Your task to perform on an android device: What's on the menu at Starbucks? Image 0: 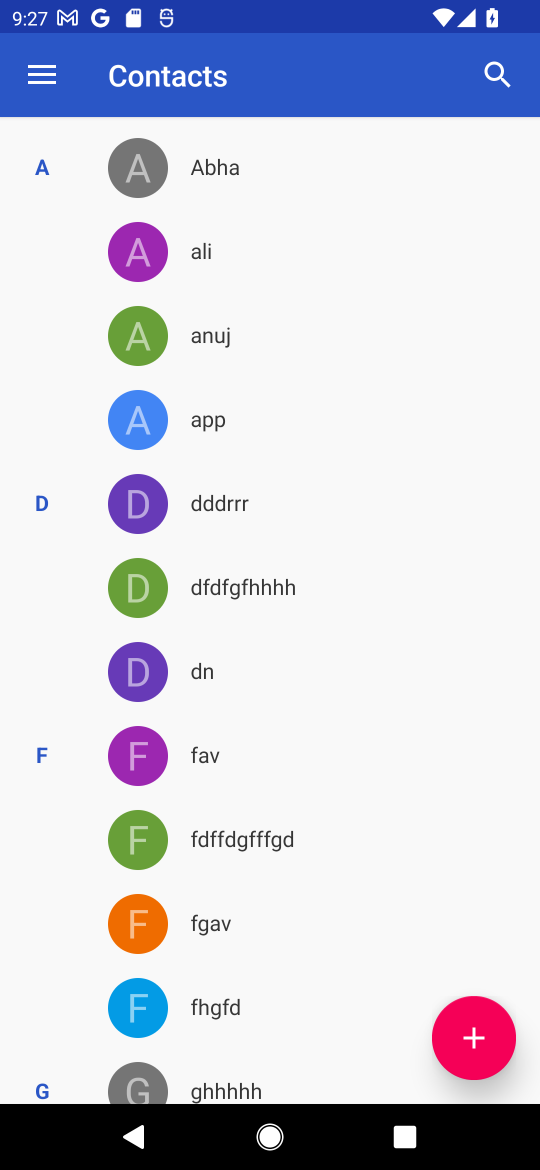
Step 0: press home button
Your task to perform on an android device: What's on the menu at Starbucks? Image 1: 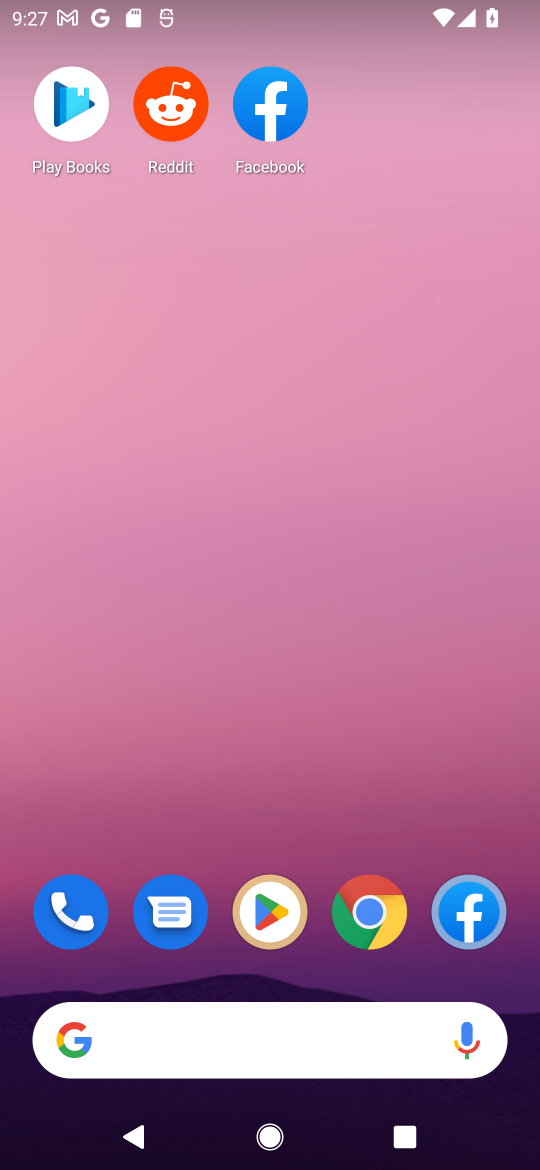
Step 1: click (365, 910)
Your task to perform on an android device: What's on the menu at Starbucks? Image 2: 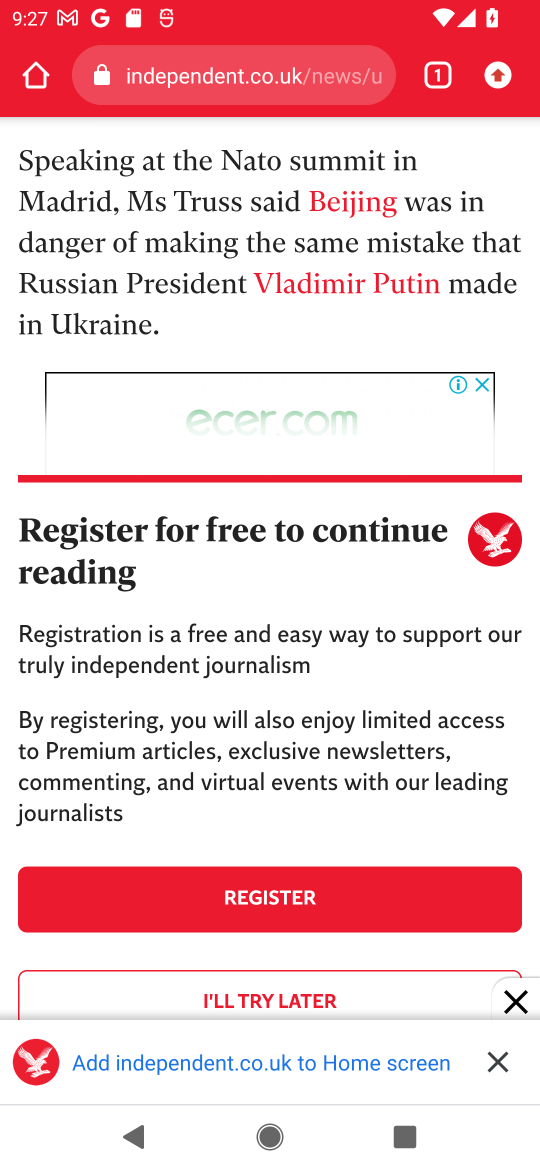
Step 2: click (291, 52)
Your task to perform on an android device: What's on the menu at Starbucks? Image 3: 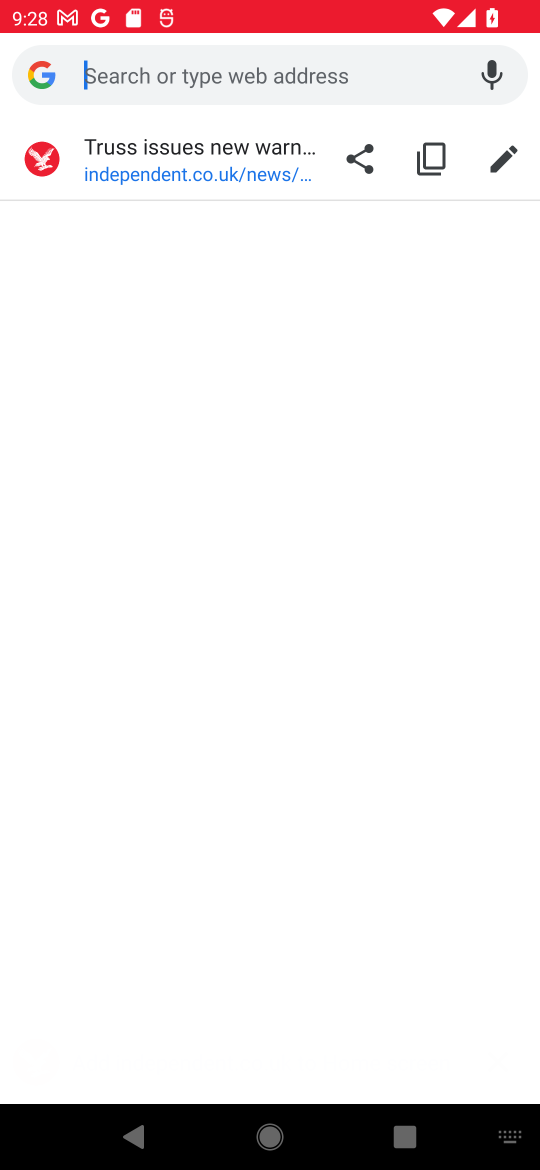
Step 3: type "menu at starbucks"
Your task to perform on an android device: What's on the menu at Starbucks? Image 4: 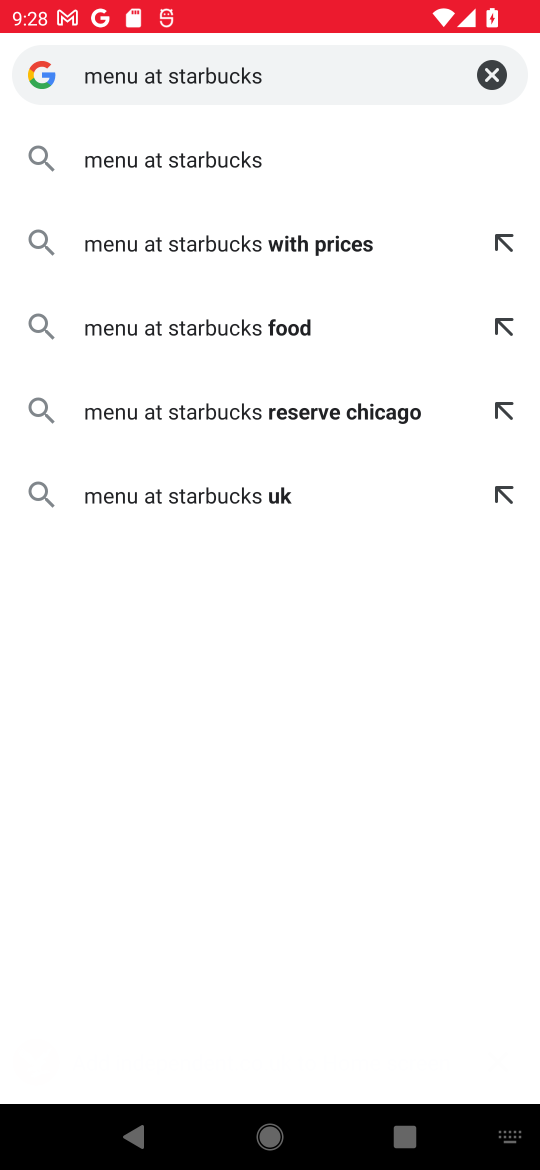
Step 4: click (227, 174)
Your task to perform on an android device: What's on the menu at Starbucks? Image 5: 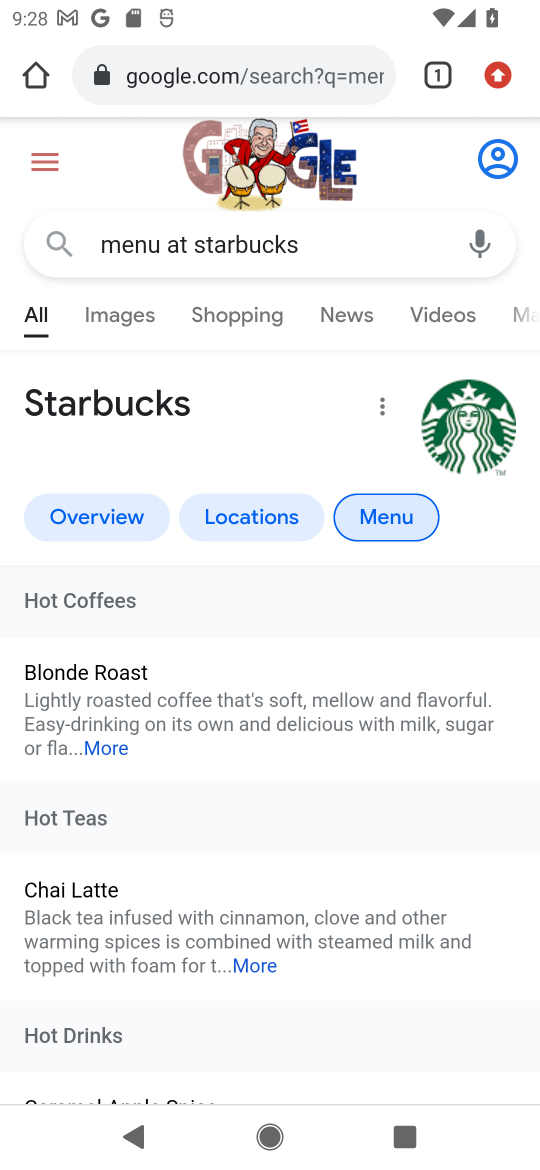
Step 5: drag from (375, 782) to (418, 304)
Your task to perform on an android device: What's on the menu at Starbucks? Image 6: 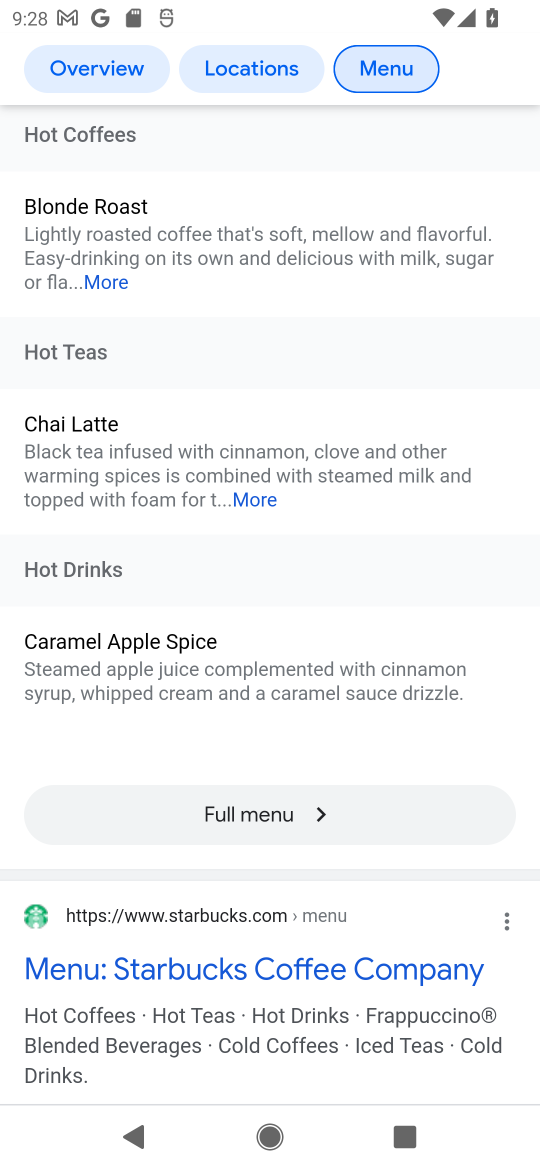
Step 6: drag from (305, 768) to (320, 214)
Your task to perform on an android device: What's on the menu at Starbucks? Image 7: 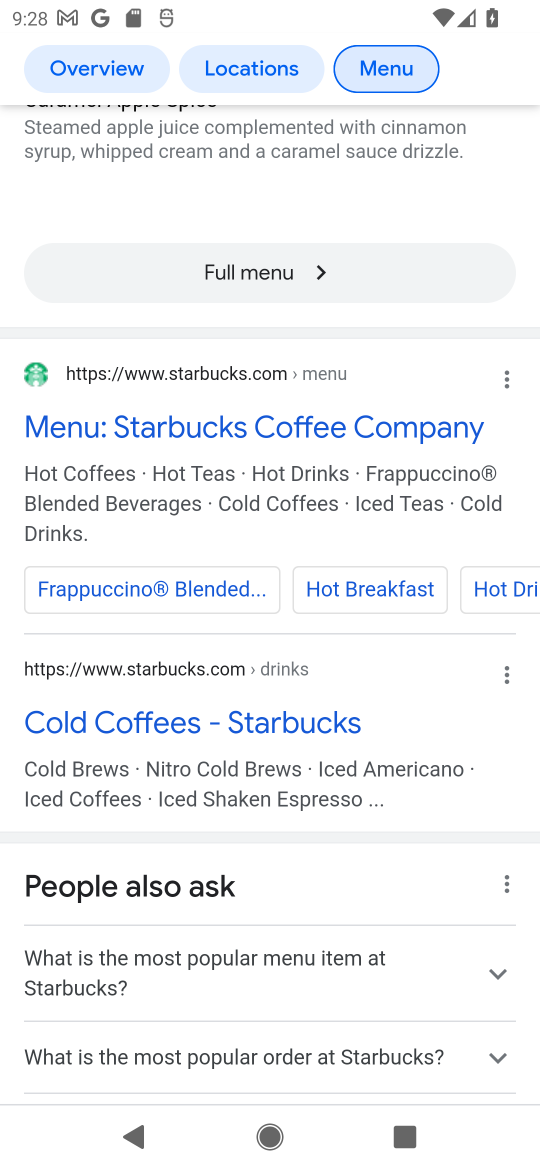
Step 7: click (224, 438)
Your task to perform on an android device: What's on the menu at Starbucks? Image 8: 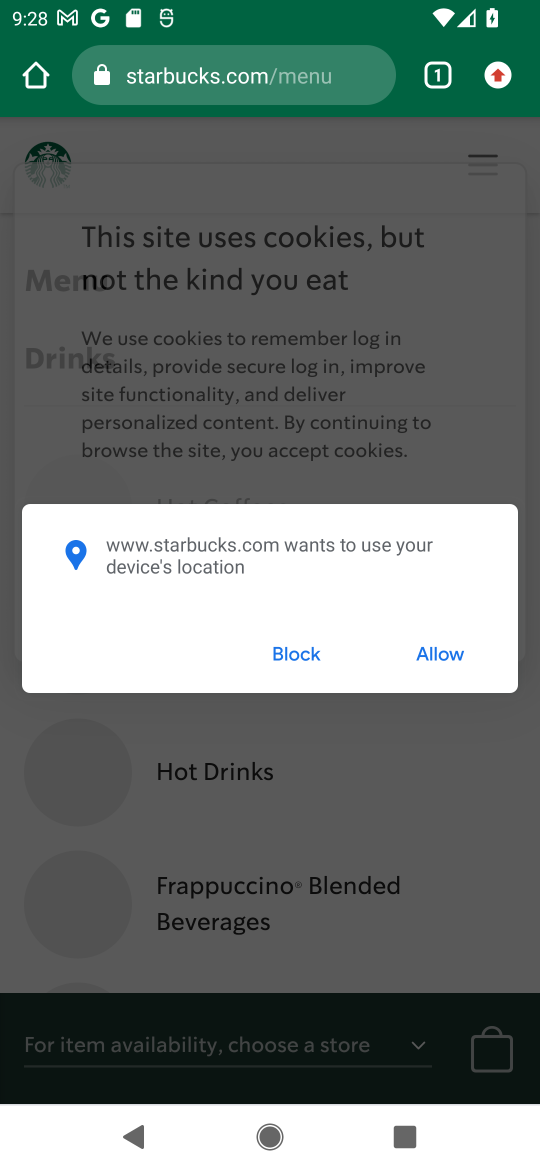
Step 8: click (287, 651)
Your task to perform on an android device: What's on the menu at Starbucks? Image 9: 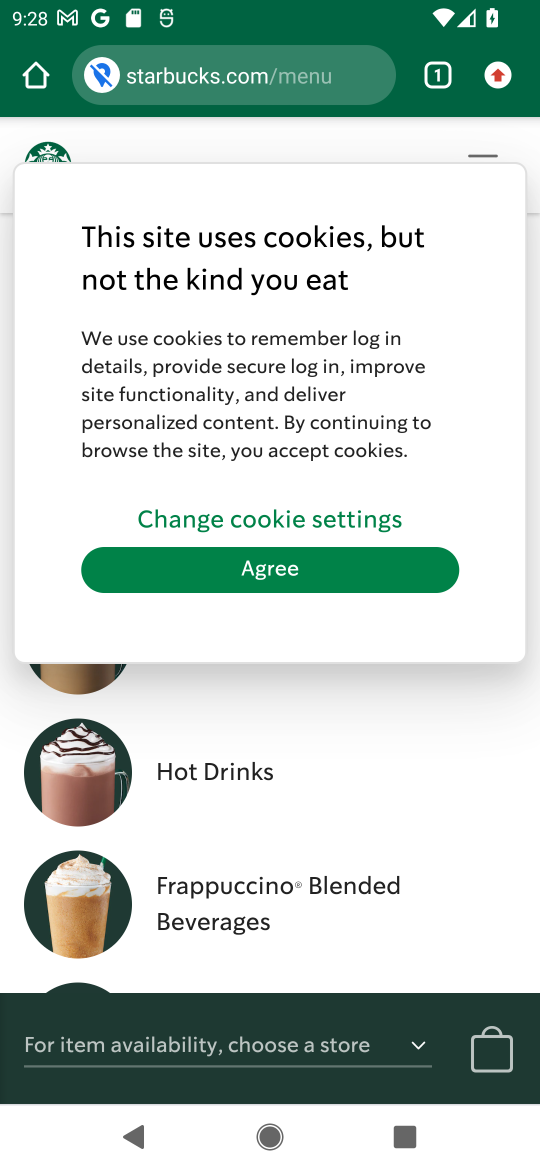
Step 9: click (288, 575)
Your task to perform on an android device: What's on the menu at Starbucks? Image 10: 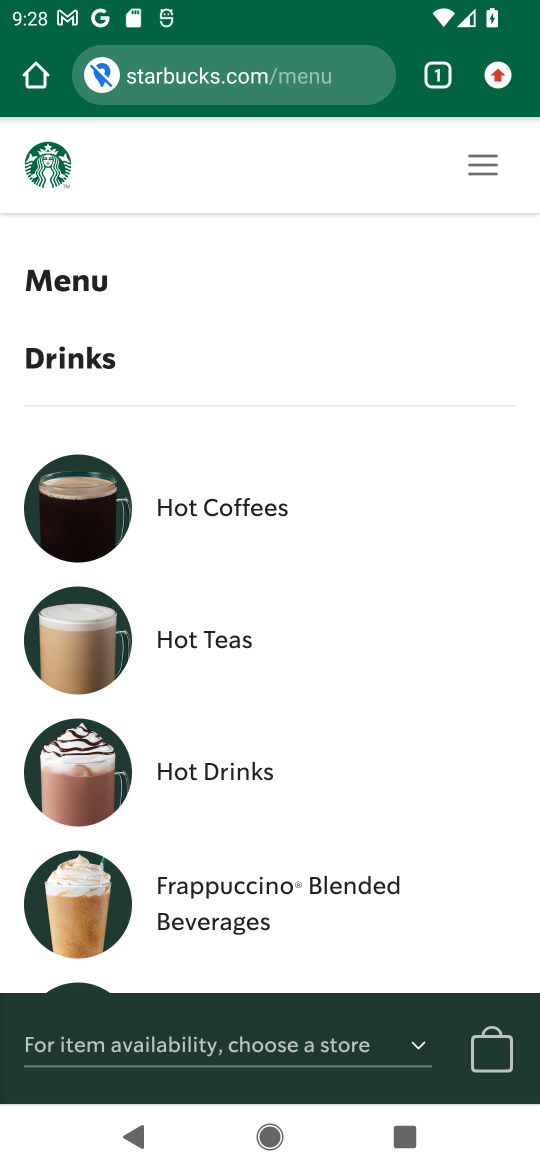
Step 10: drag from (327, 806) to (348, 368)
Your task to perform on an android device: What's on the menu at Starbucks? Image 11: 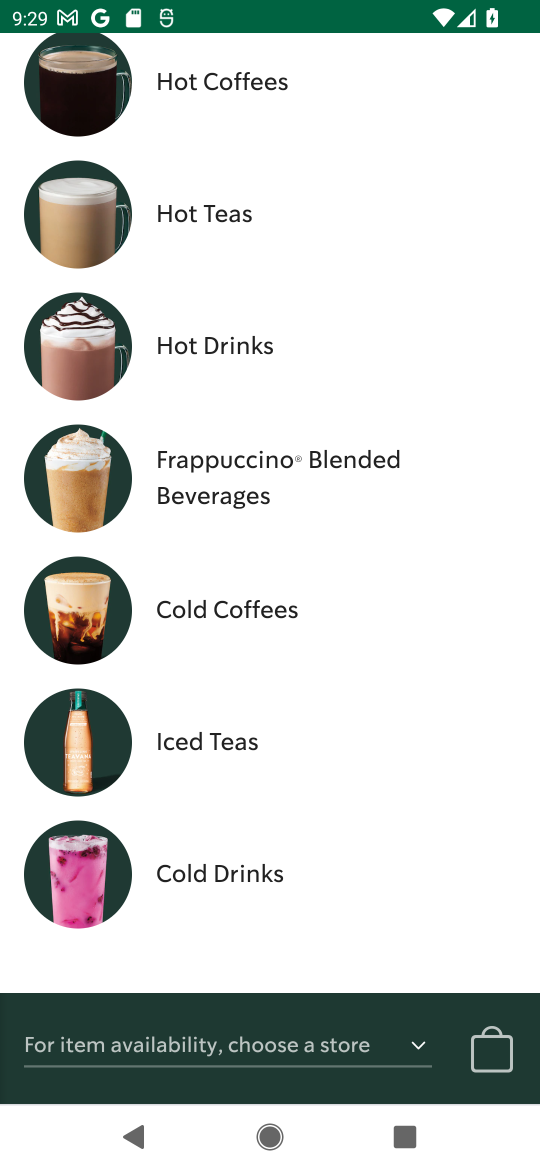
Step 11: click (190, 208)
Your task to perform on an android device: What's on the menu at Starbucks? Image 12: 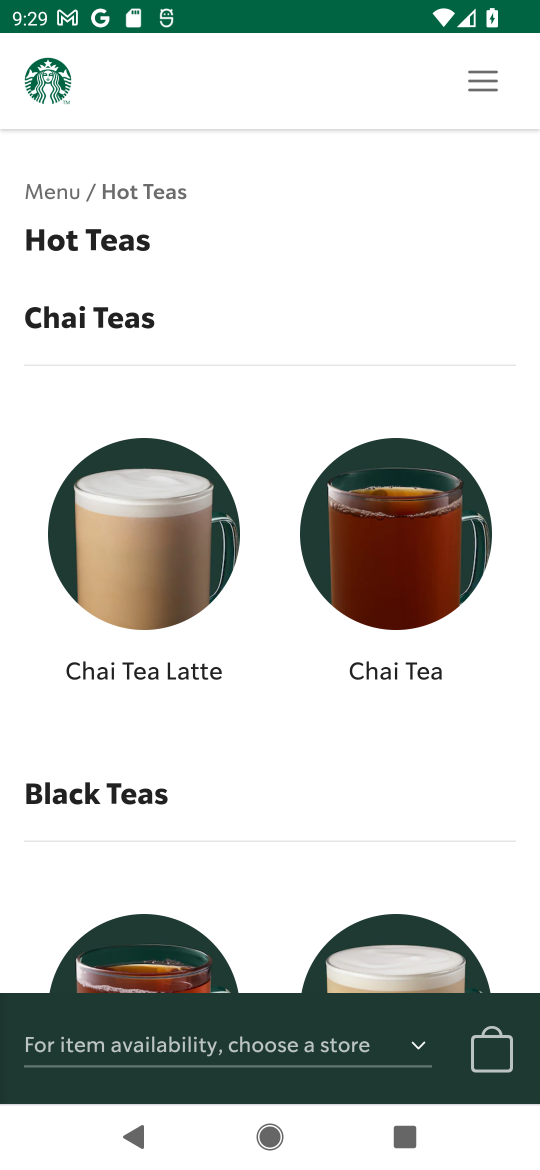
Step 12: task complete